Your task to perform on an android device: turn off notifications in google photos Image 0: 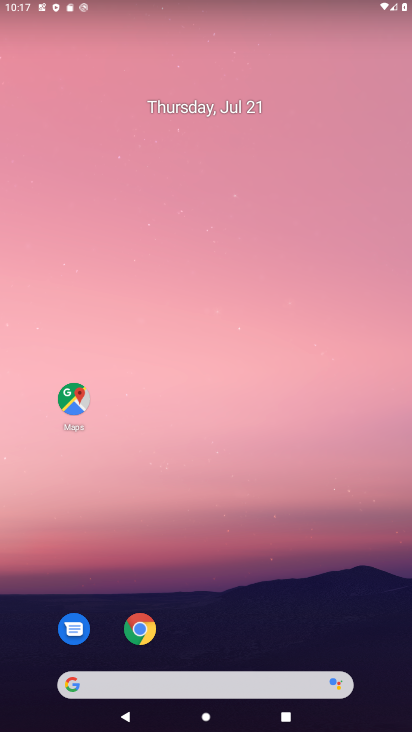
Step 0: drag from (297, 647) to (306, 209)
Your task to perform on an android device: turn off notifications in google photos Image 1: 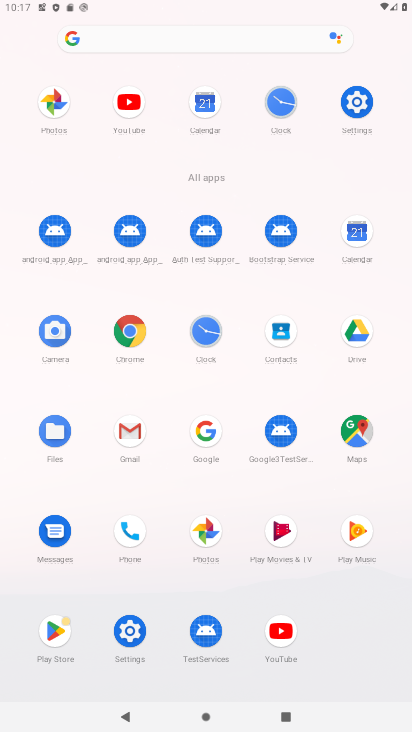
Step 1: click (191, 531)
Your task to perform on an android device: turn off notifications in google photos Image 2: 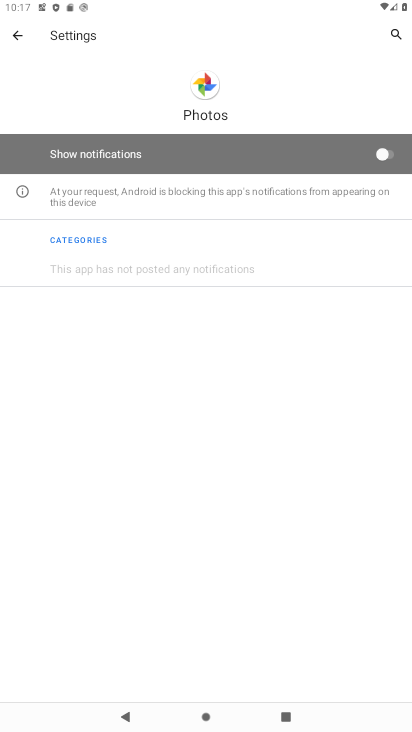
Step 2: task complete